Your task to perform on an android device: install app "Roku - Official Remote Control" Image 0: 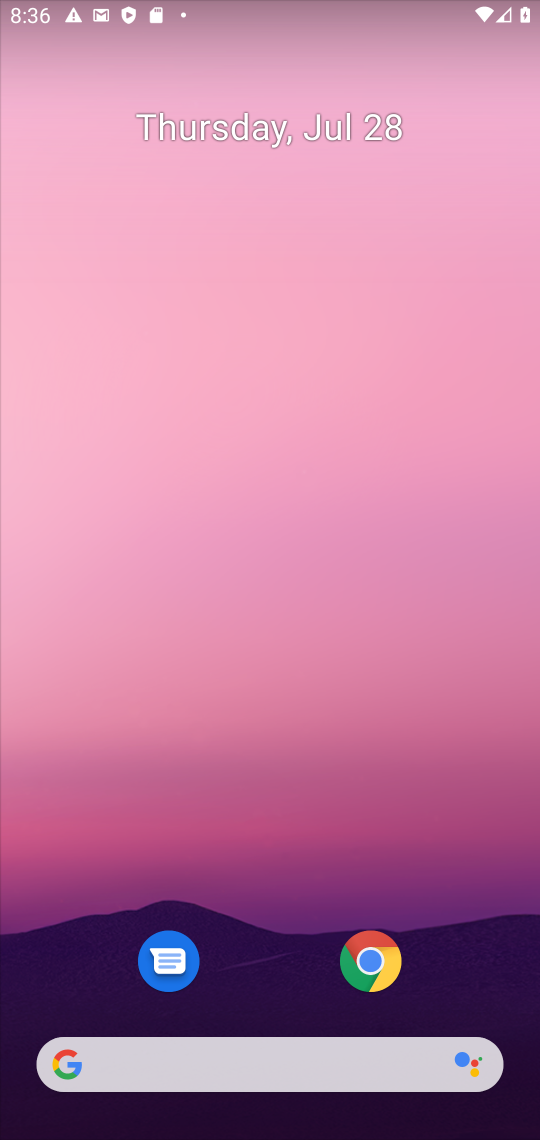
Step 0: drag from (273, 961) to (241, 125)
Your task to perform on an android device: install app "Roku - Official Remote Control" Image 1: 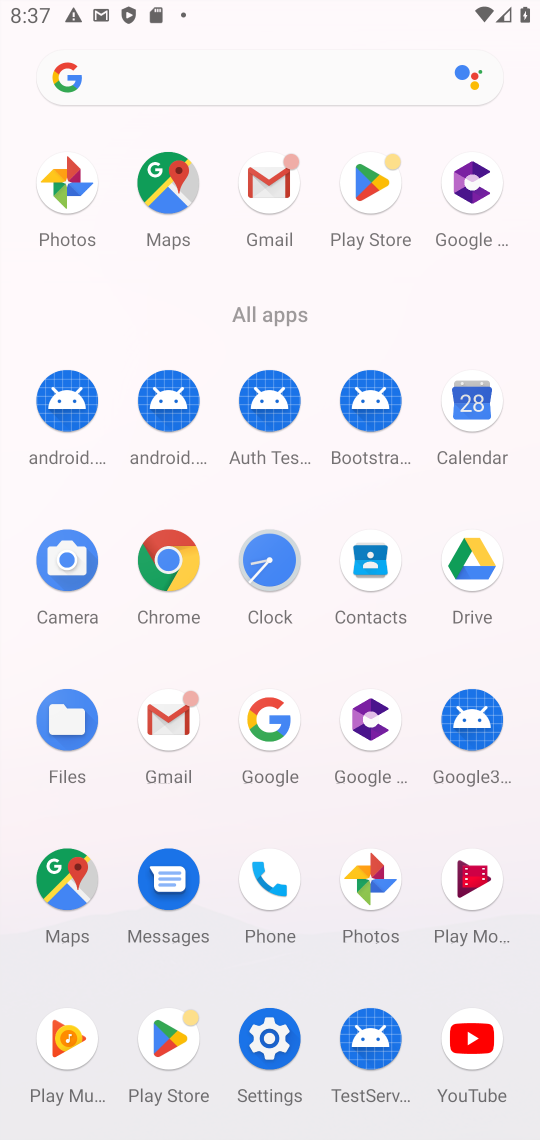
Step 1: click (383, 189)
Your task to perform on an android device: install app "Roku - Official Remote Control" Image 2: 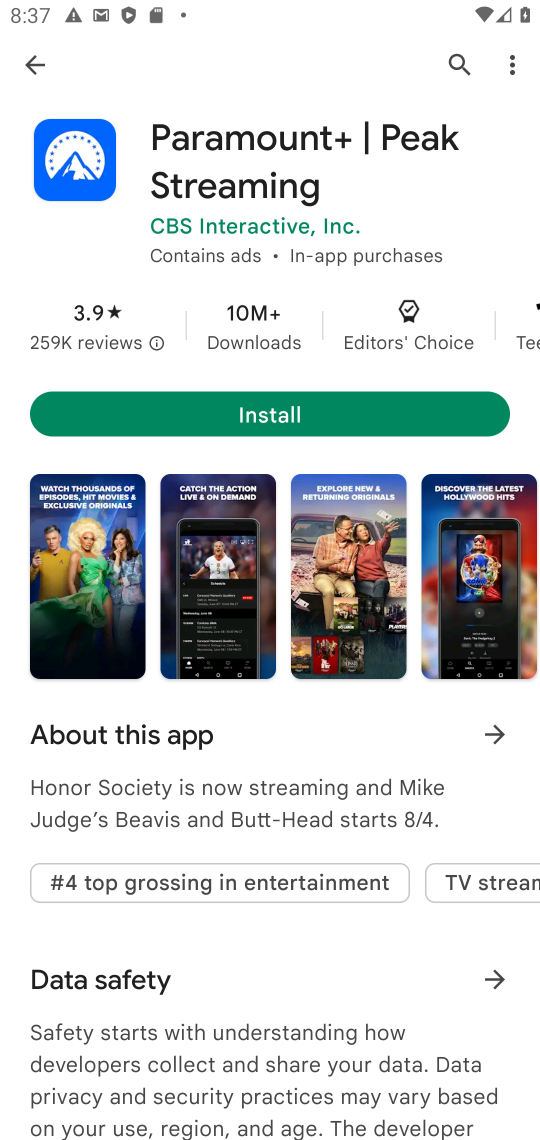
Step 2: click (453, 77)
Your task to perform on an android device: install app "Roku - Official Remote Control" Image 3: 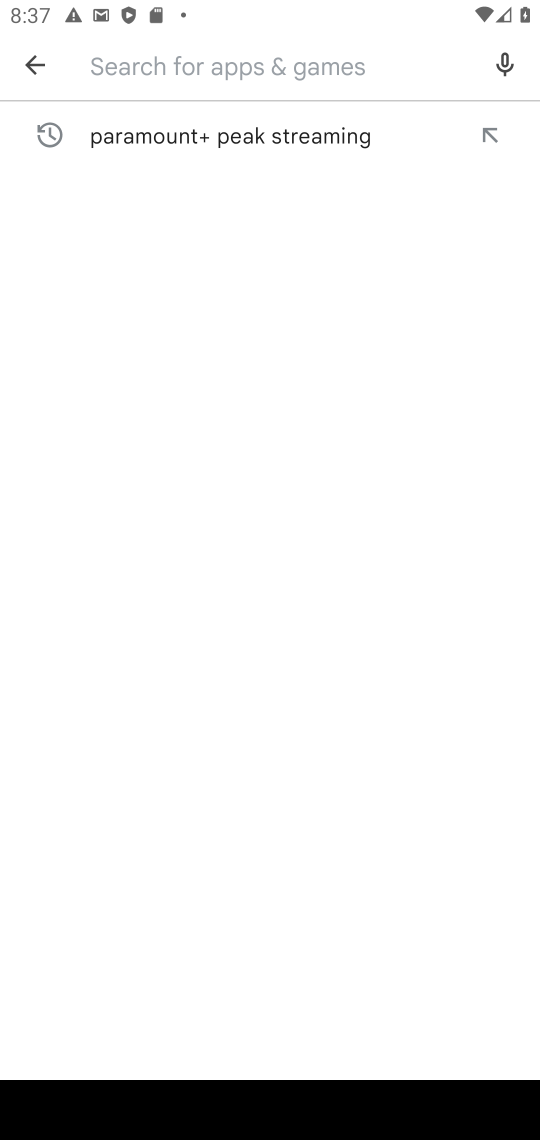
Step 3: drag from (36, 997) to (494, 1)
Your task to perform on an android device: install app "Roku - Official Remote Control" Image 4: 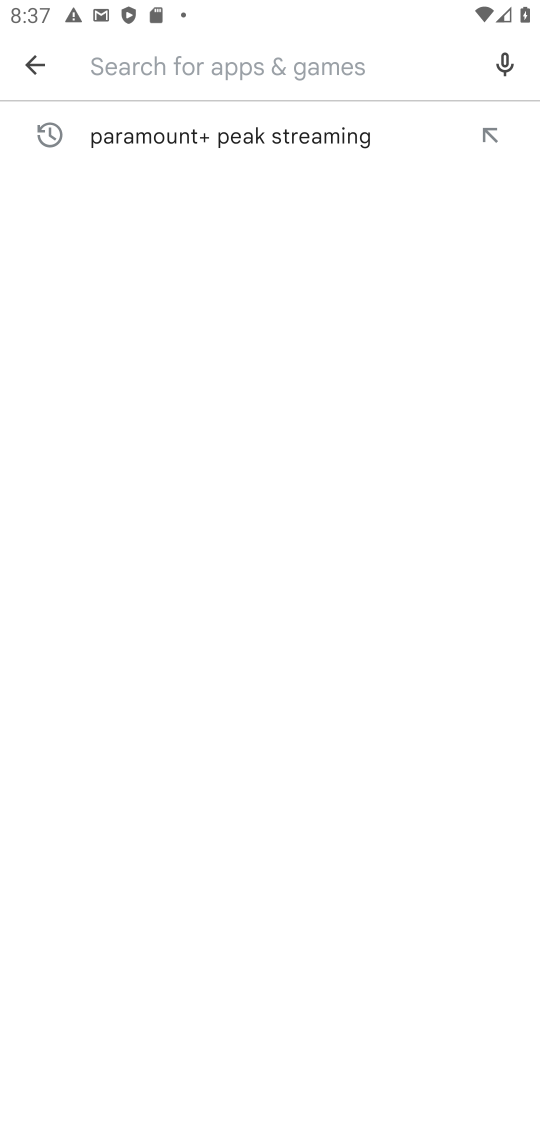
Step 4: type "Roku - Official Remote Control"
Your task to perform on an android device: install app "Roku - Official Remote Control" Image 5: 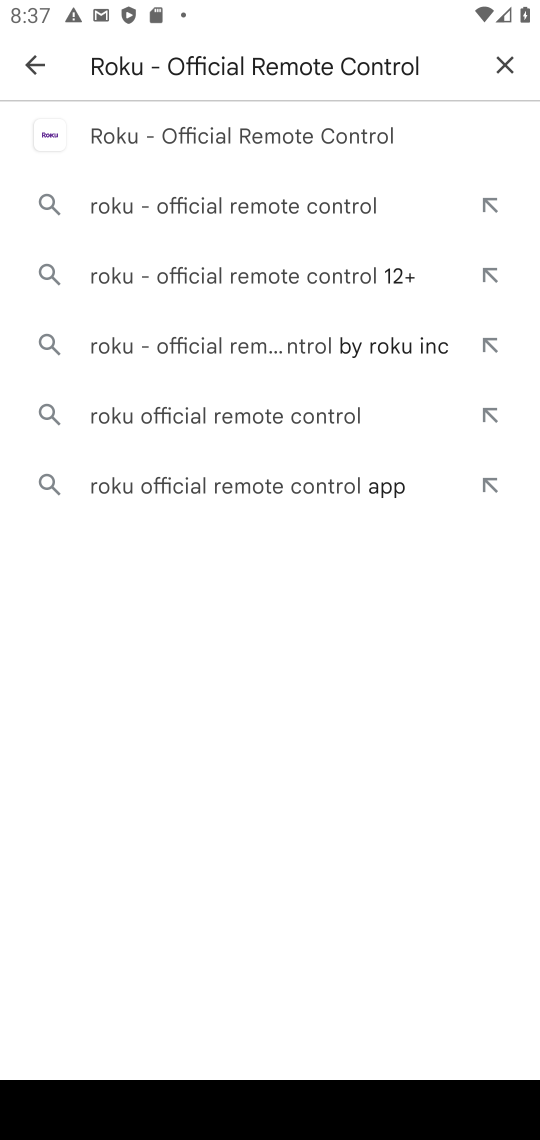
Step 5: click (303, 127)
Your task to perform on an android device: install app "Roku - Official Remote Control" Image 6: 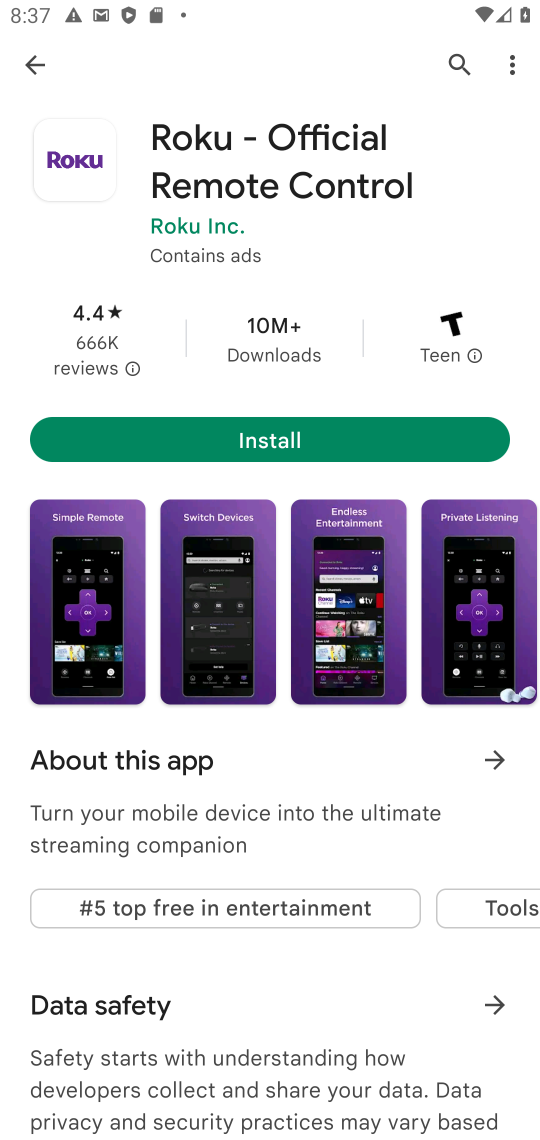
Step 6: click (298, 427)
Your task to perform on an android device: install app "Roku - Official Remote Control" Image 7: 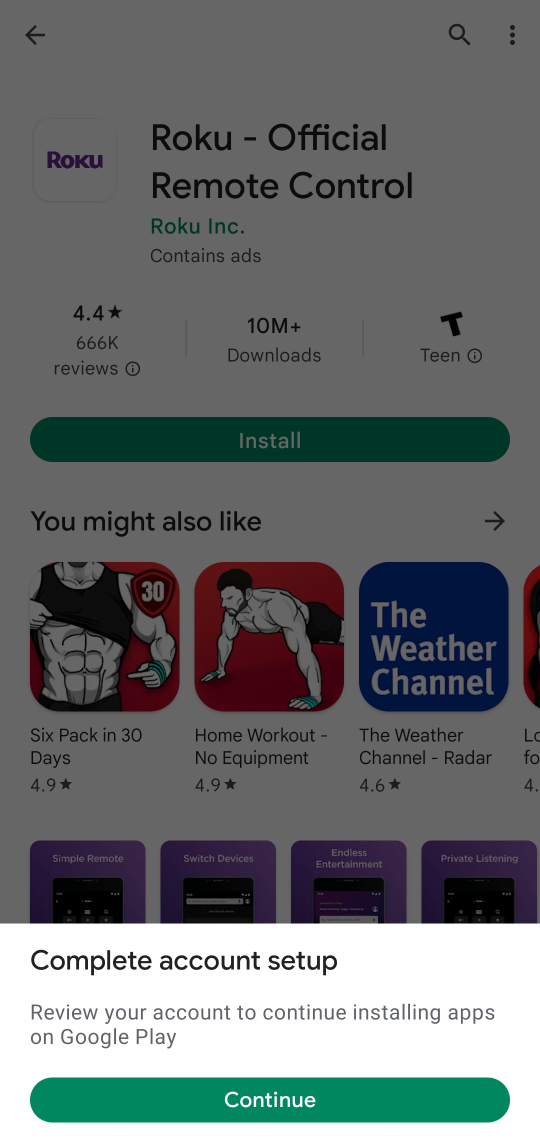
Step 7: click (295, 1113)
Your task to perform on an android device: install app "Roku - Official Remote Control" Image 8: 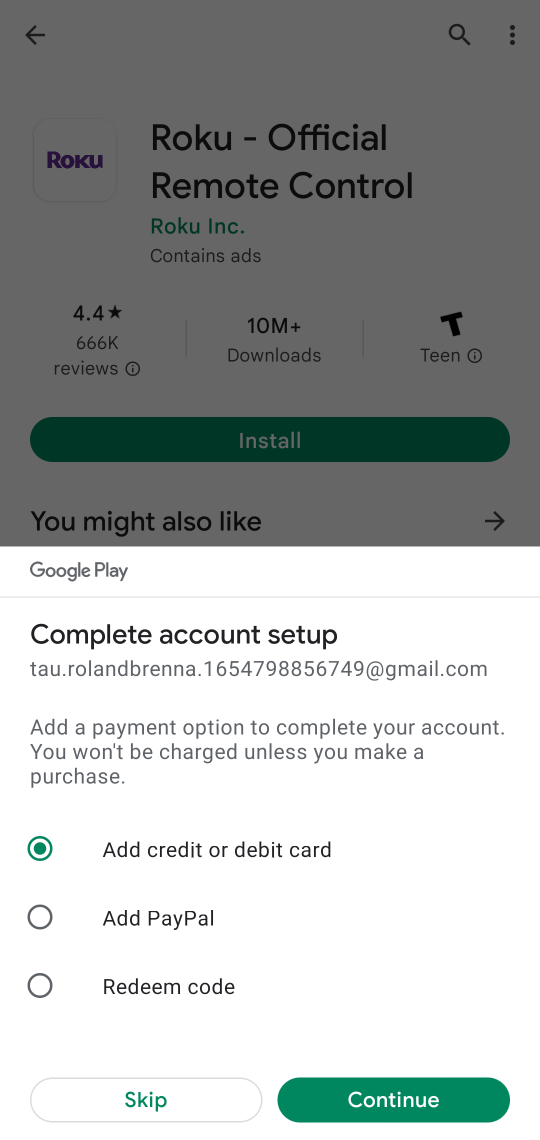
Step 8: click (191, 1103)
Your task to perform on an android device: install app "Roku - Official Remote Control" Image 9: 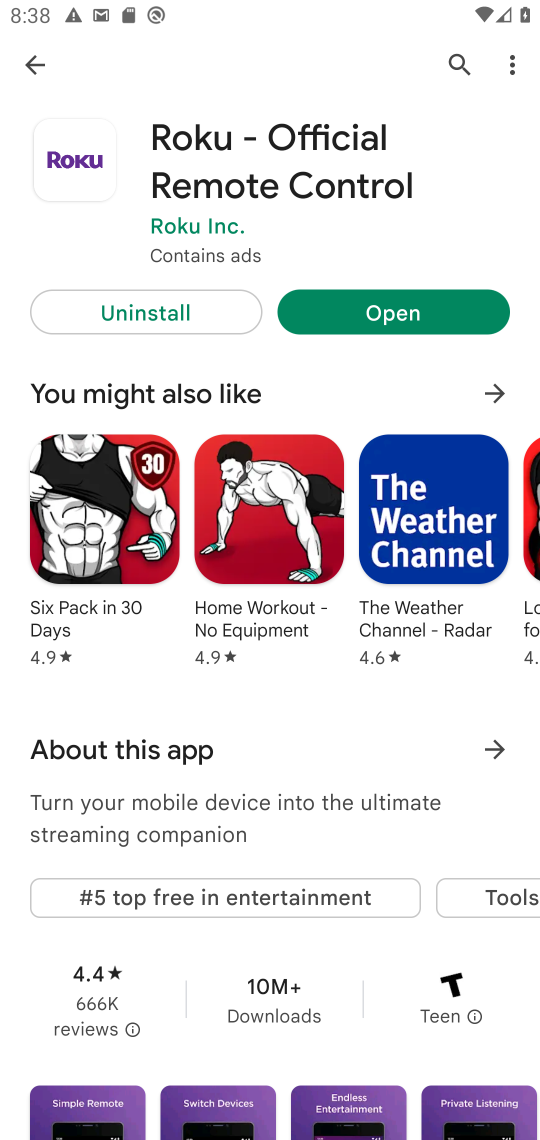
Step 9: task complete